Your task to perform on an android device: toggle pop-ups in chrome Image 0: 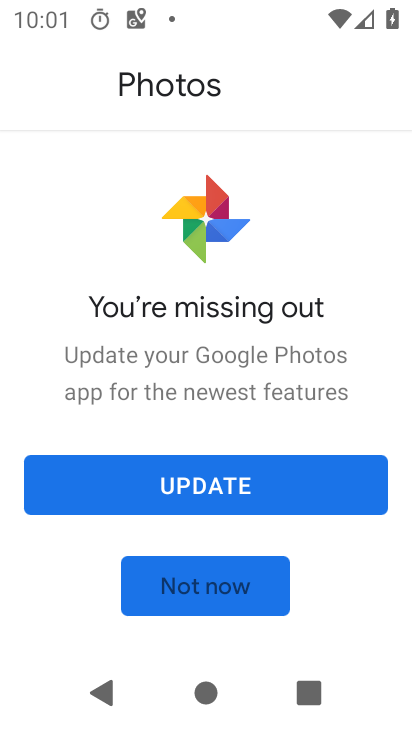
Step 0: press home button
Your task to perform on an android device: toggle pop-ups in chrome Image 1: 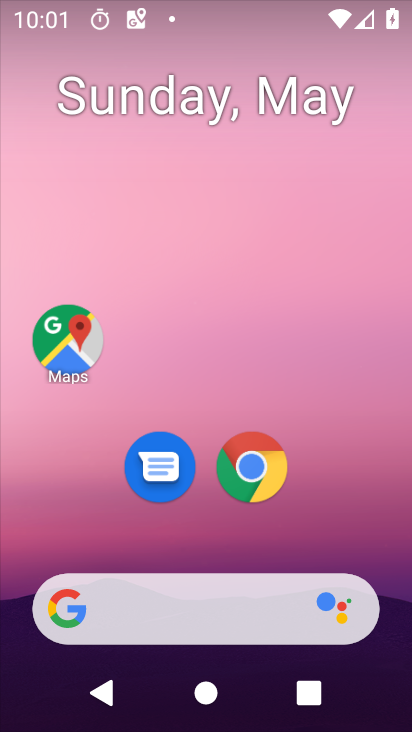
Step 1: click (238, 497)
Your task to perform on an android device: toggle pop-ups in chrome Image 2: 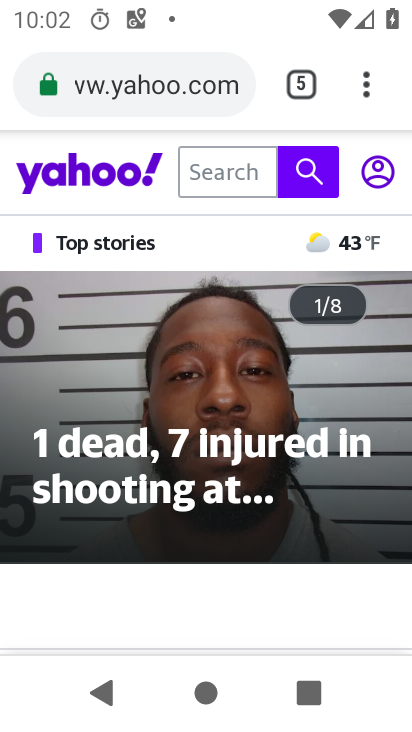
Step 2: drag from (352, 86) to (143, 533)
Your task to perform on an android device: toggle pop-ups in chrome Image 3: 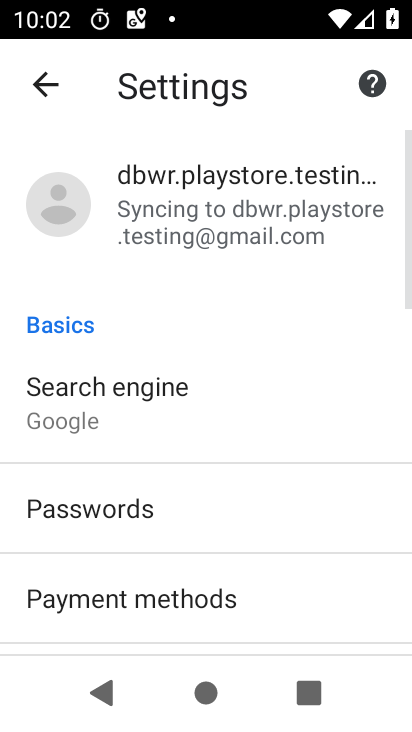
Step 3: drag from (191, 378) to (233, 230)
Your task to perform on an android device: toggle pop-ups in chrome Image 4: 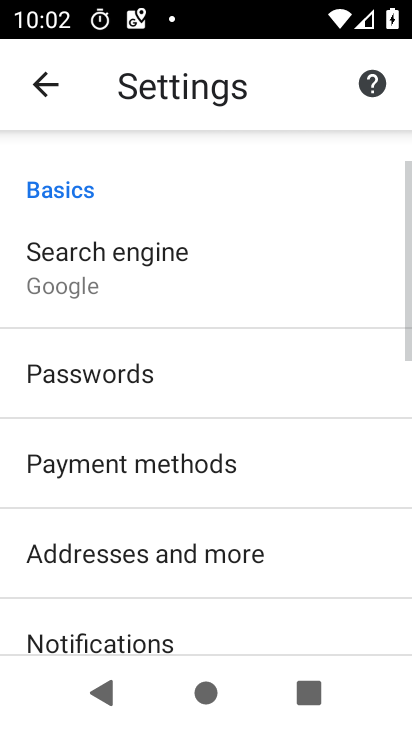
Step 4: drag from (269, 418) to (264, 199)
Your task to perform on an android device: toggle pop-ups in chrome Image 5: 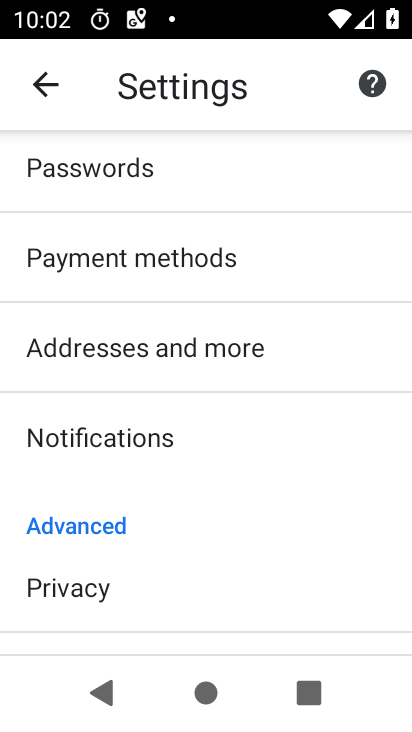
Step 5: drag from (244, 498) to (259, 189)
Your task to perform on an android device: toggle pop-ups in chrome Image 6: 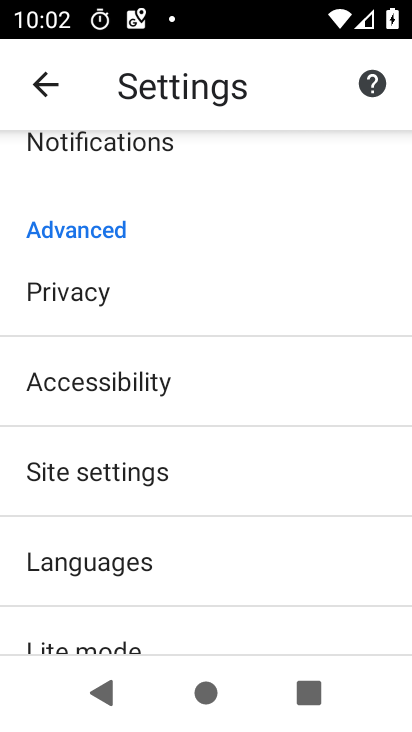
Step 6: click (204, 476)
Your task to perform on an android device: toggle pop-ups in chrome Image 7: 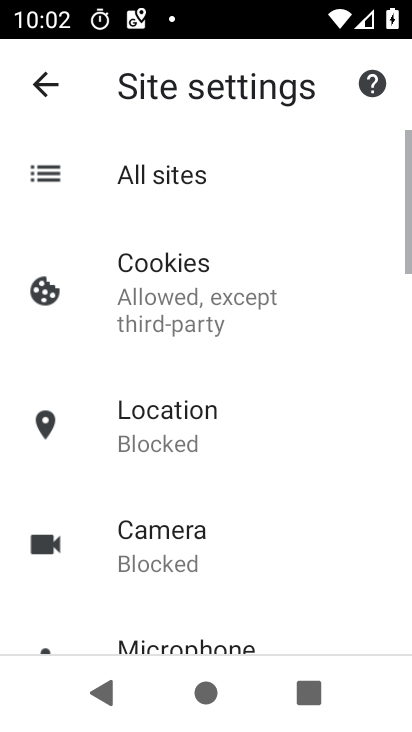
Step 7: drag from (206, 570) to (222, 252)
Your task to perform on an android device: toggle pop-ups in chrome Image 8: 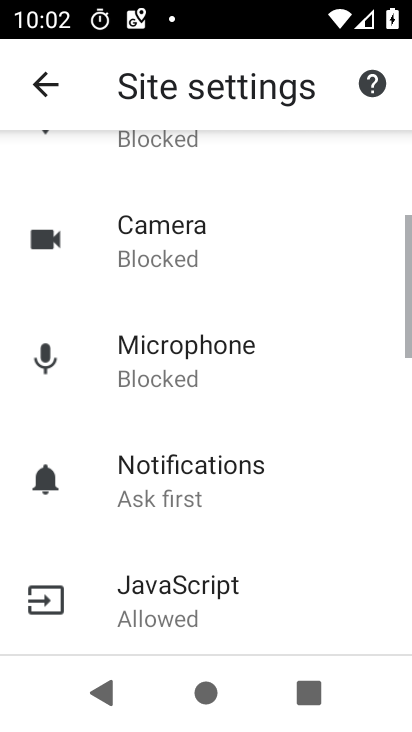
Step 8: drag from (233, 518) to (239, 201)
Your task to perform on an android device: toggle pop-ups in chrome Image 9: 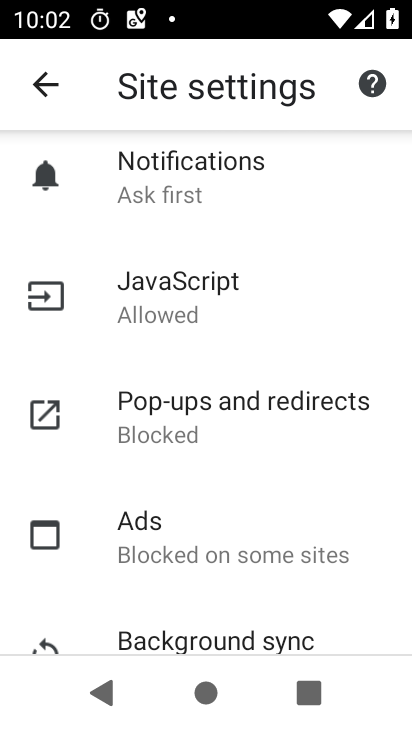
Step 9: click (240, 410)
Your task to perform on an android device: toggle pop-ups in chrome Image 10: 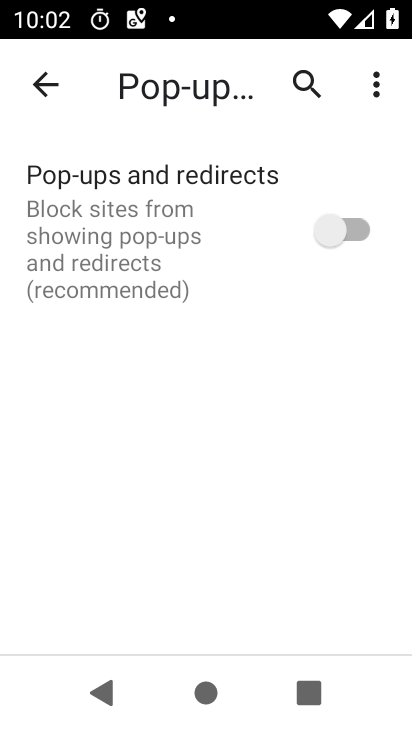
Step 10: click (350, 231)
Your task to perform on an android device: toggle pop-ups in chrome Image 11: 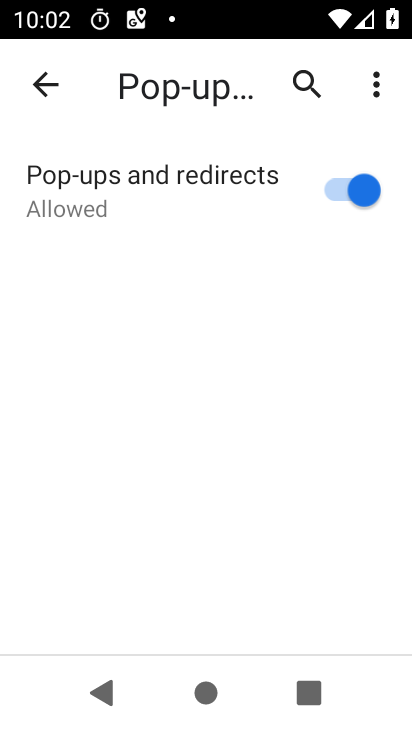
Step 11: task complete